Your task to perform on an android device: turn pop-ups on in chrome Image 0: 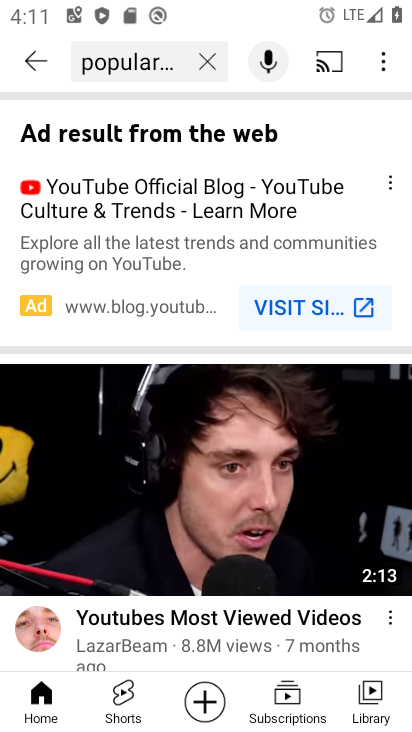
Step 0: press home button
Your task to perform on an android device: turn pop-ups on in chrome Image 1: 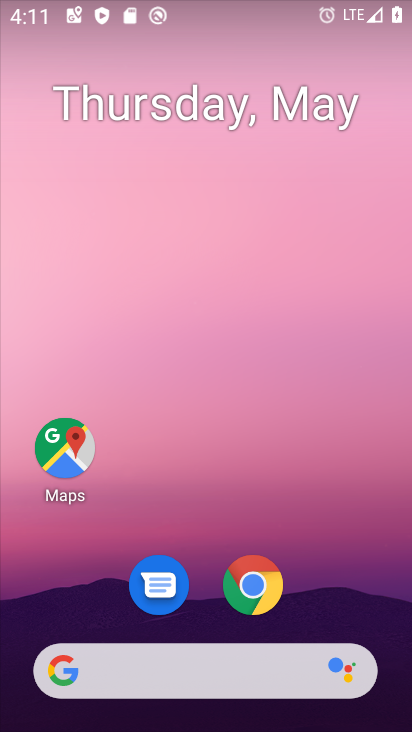
Step 1: click (260, 581)
Your task to perform on an android device: turn pop-ups on in chrome Image 2: 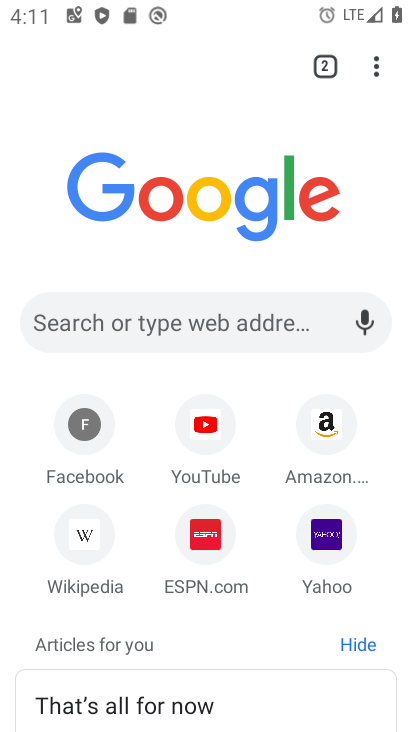
Step 2: click (371, 68)
Your task to perform on an android device: turn pop-ups on in chrome Image 3: 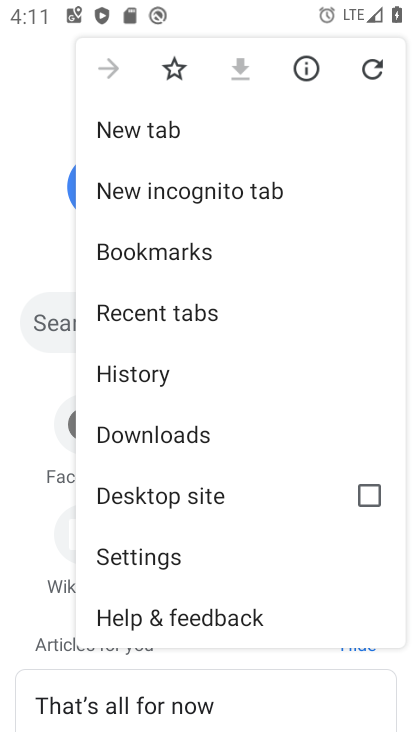
Step 3: click (186, 560)
Your task to perform on an android device: turn pop-ups on in chrome Image 4: 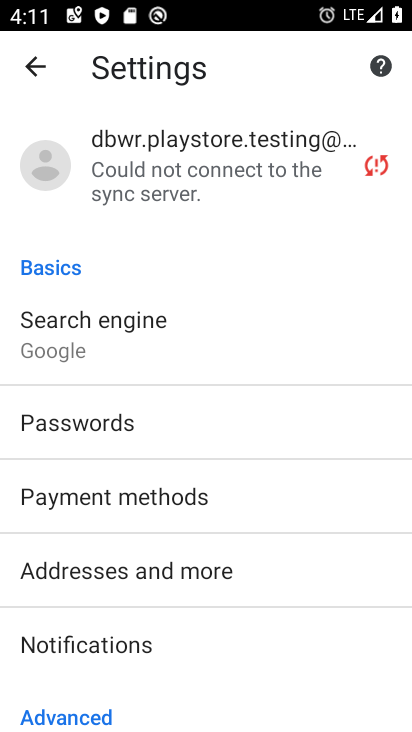
Step 4: drag from (213, 633) to (275, 182)
Your task to perform on an android device: turn pop-ups on in chrome Image 5: 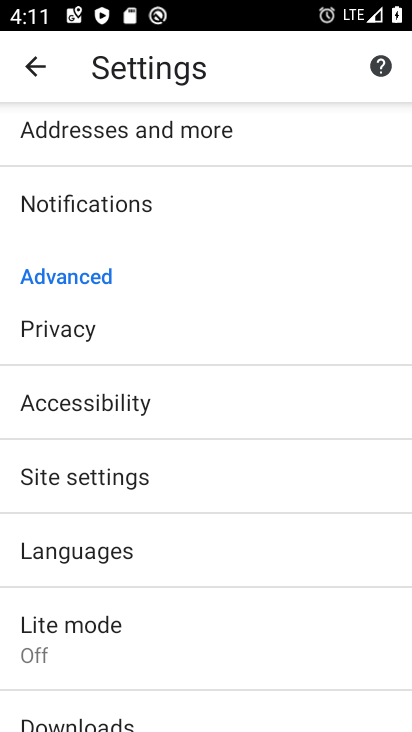
Step 5: click (211, 470)
Your task to perform on an android device: turn pop-ups on in chrome Image 6: 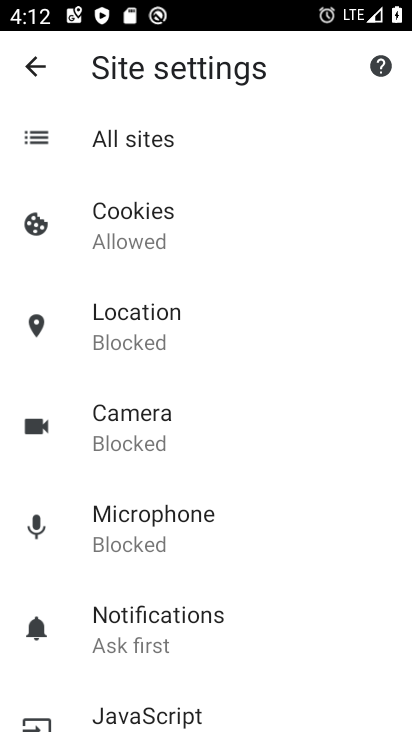
Step 6: drag from (234, 586) to (242, 171)
Your task to perform on an android device: turn pop-ups on in chrome Image 7: 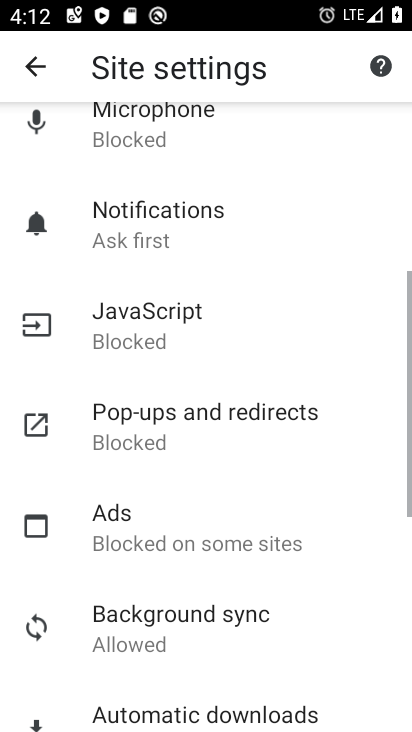
Step 7: click (234, 437)
Your task to perform on an android device: turn pop-ups on in chrome Image 8: 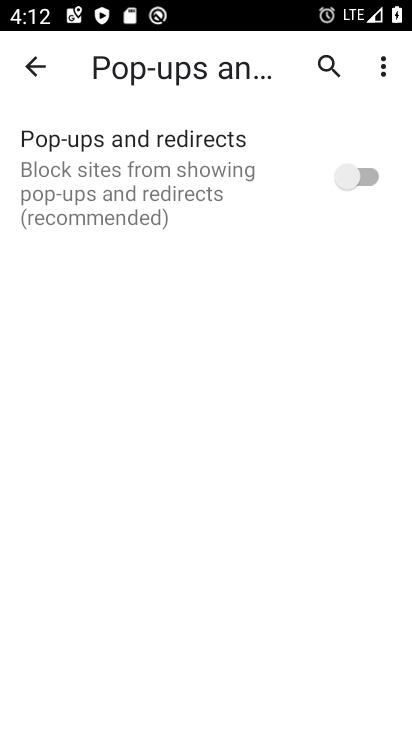
Step 8: click (355, 173)
Your task to perform on an android device: turn pop-ups on in chrome Image 9: 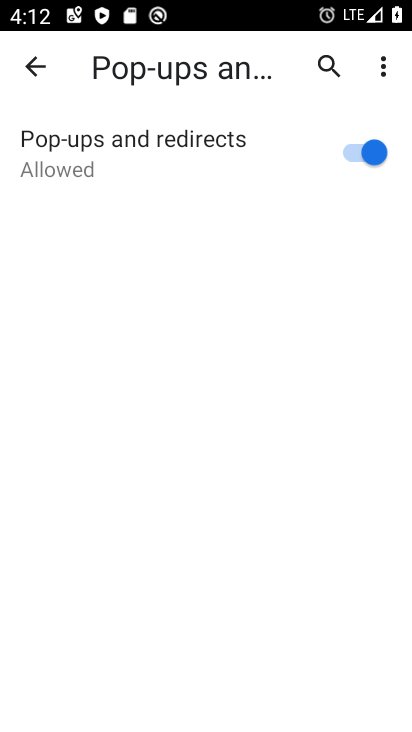
Step 9: task complete